Your task to perform on an android device: Turn off the flashlight Image 0: 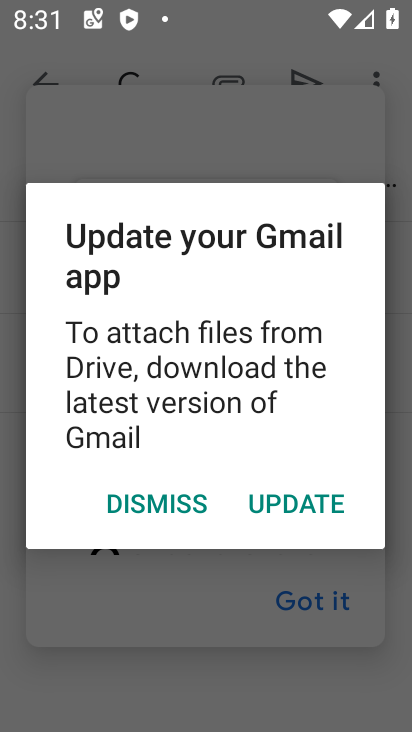
Step 0: press back button
Your task to perform on an android device: Turn off the flashlight Image 1: 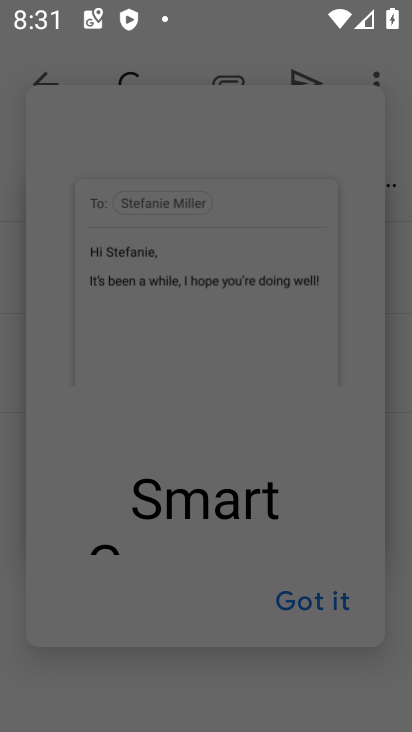
Step 1: press back button
Your task to perform on an android device: Turn off the flashlight Image 2: 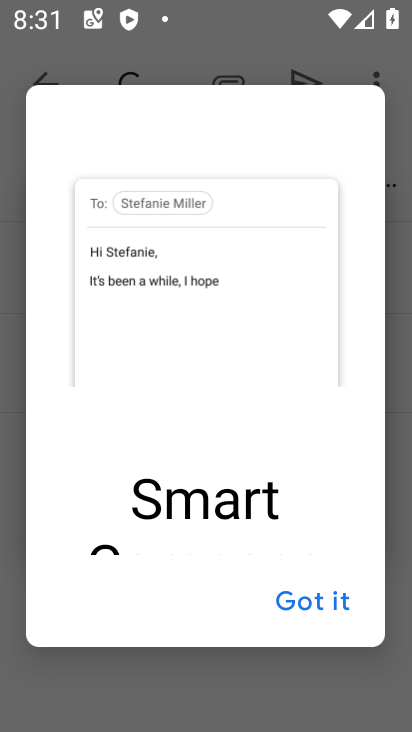
Step 2: press home button
Your task to perform on an android device: Turn off the flashlight Image 3: 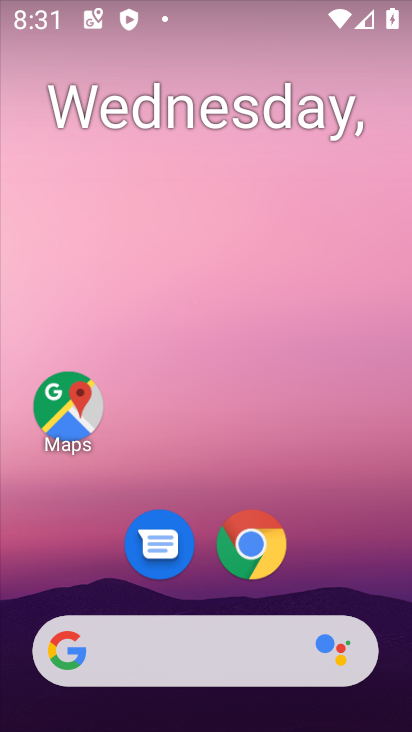
Step 3: drag from (145, 612) to (313, 54)
Your task to perform on an android device: Turn off the flashlight Image 4: 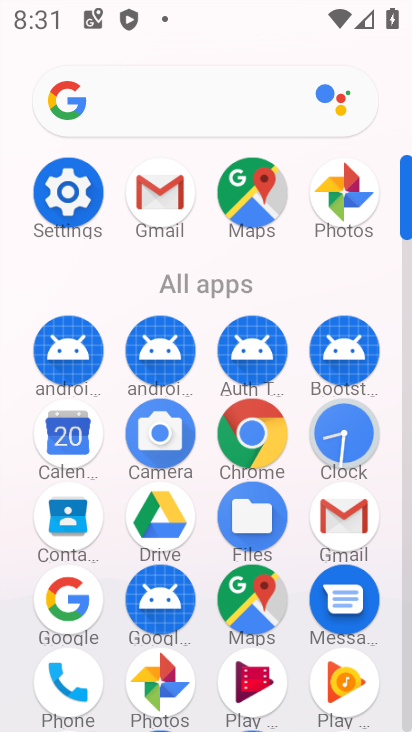
Step 4: click (55, 179)
Your task to perform on an android device: Turn off the flashlight Image 5: 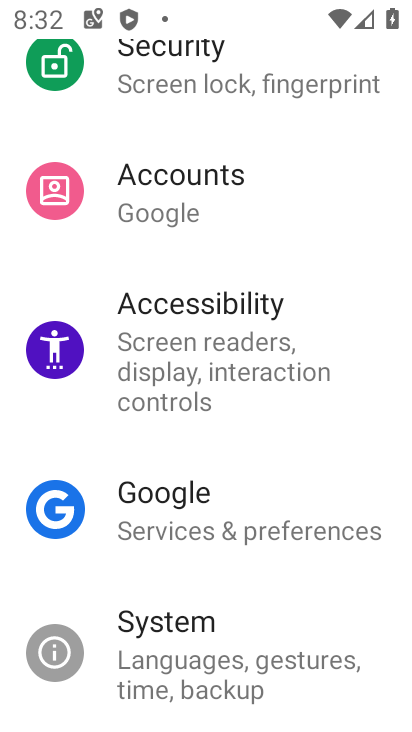
Step 5: drag from (206, 180) to (284, 657)
Your task to perform on an android device: Turn off the flashlight Image 6: 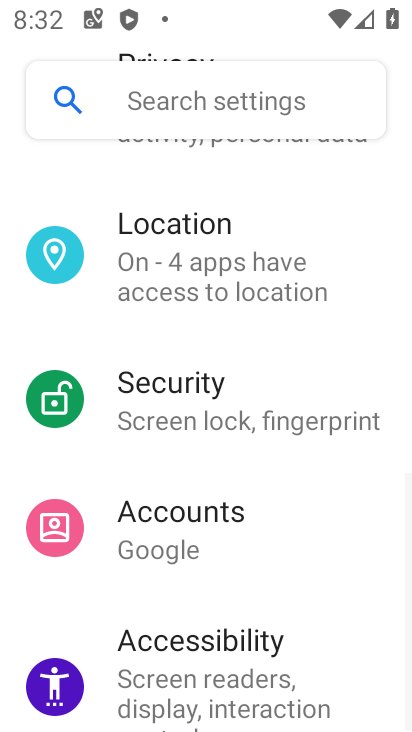
Step 6: click (241, 115)
Your task to perform on an android device: Turn off the flashlight Image 7: 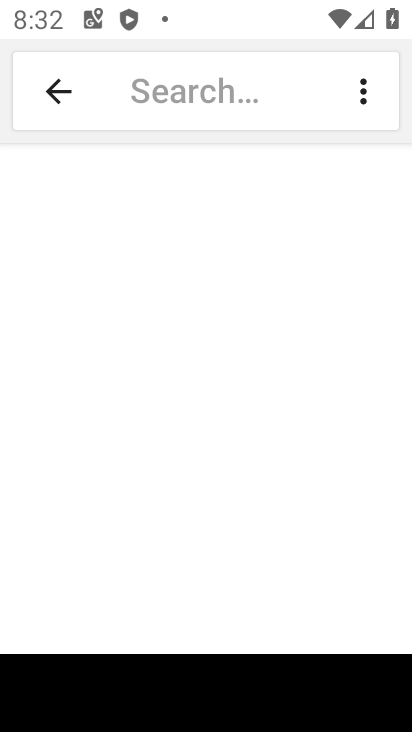
Step 7: type ""
Your task to perform on an android device: Turn off the flashlight Image 8: 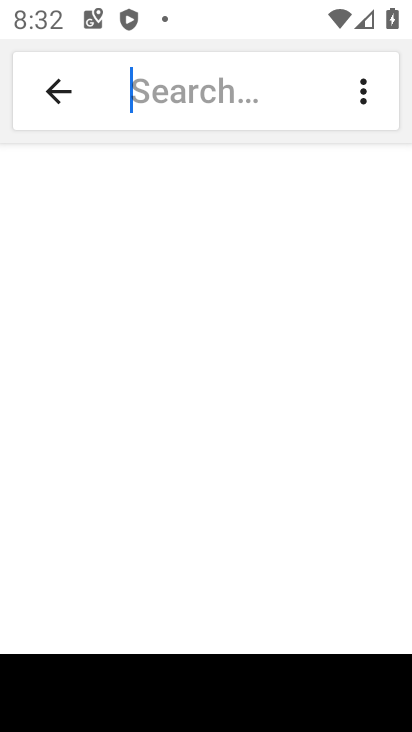
Step 8: type ""
Your task to perform on an android device: Turn off the flashlight Image 9: 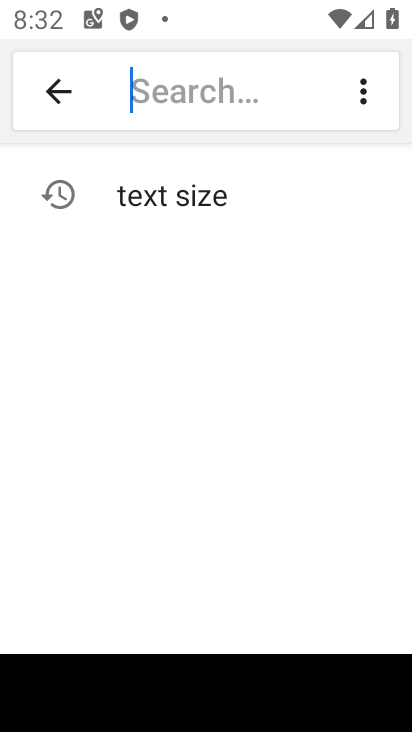
Step 9: type "flashlight"
Your task to perform on an android device: Turn off the flashlight Image 10: 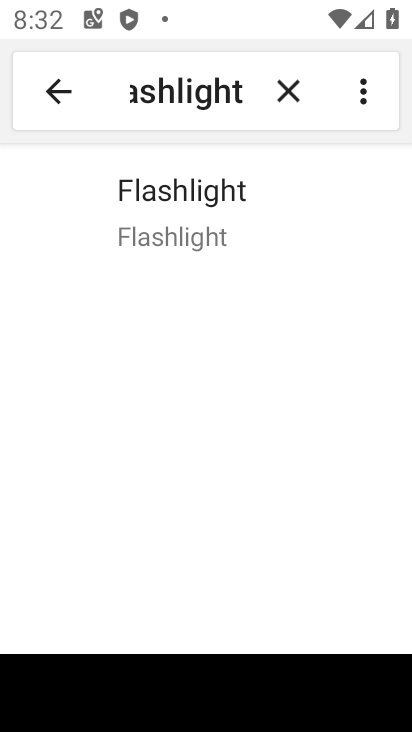
Step 10: click (183, 209)
Your task to perform on an android device: Turn off the flashlight Image 11: 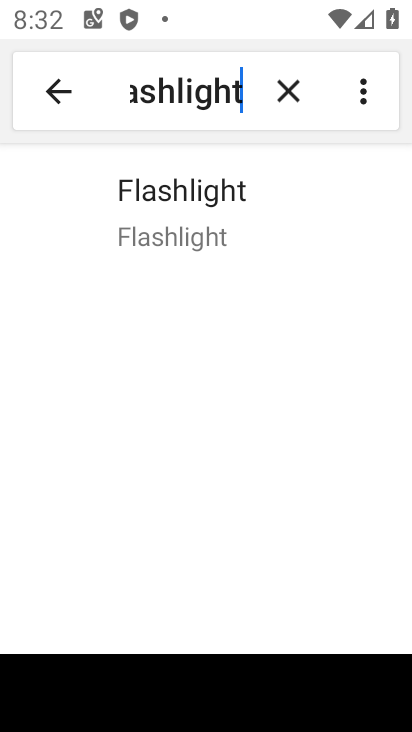
Step 11: task complete